Your task to perform on an android device: Go to Wikipedia Image 0: 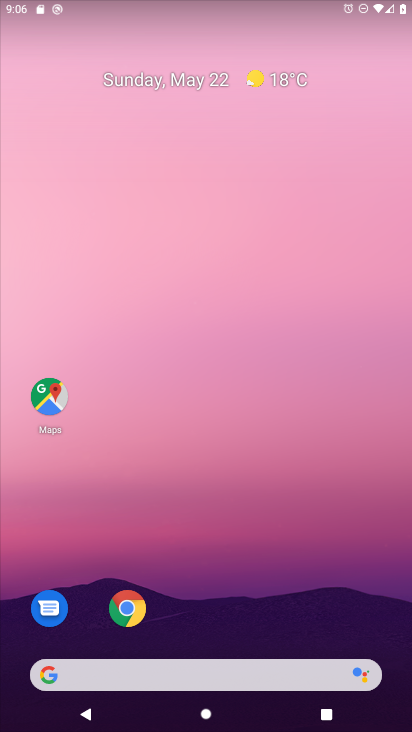
Step 0: click (124, 605)
Your task to perform on an android device: Go to Wikipedia Image 1: 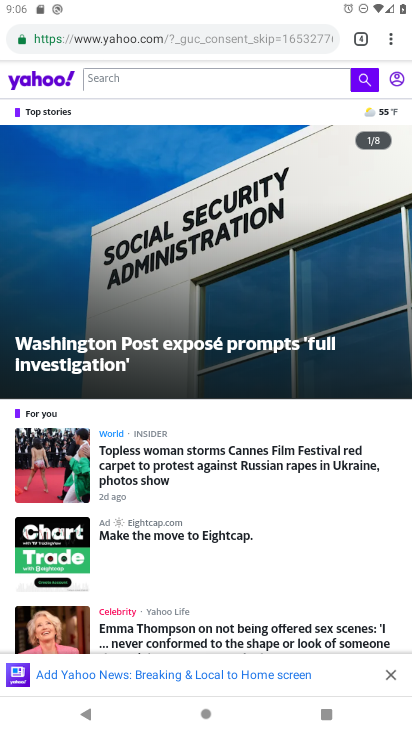
Step 1: click (390, 42)
Your task to perform on an android device: Go to Wikipedia Image 2: 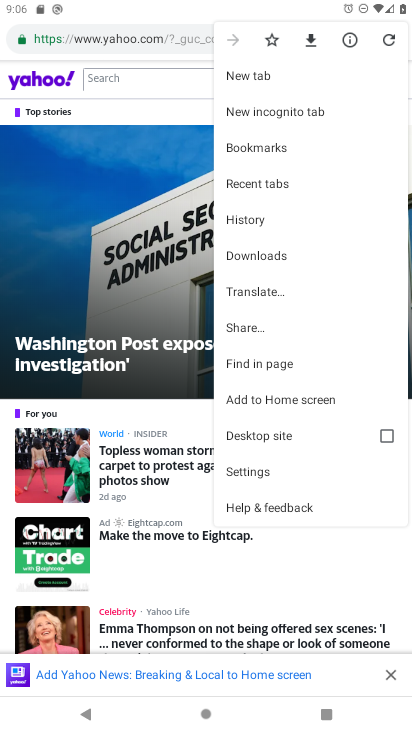
Step 2: click (253, 73)
Your task to perform on an android device: Go to Wikipedia Image 3: 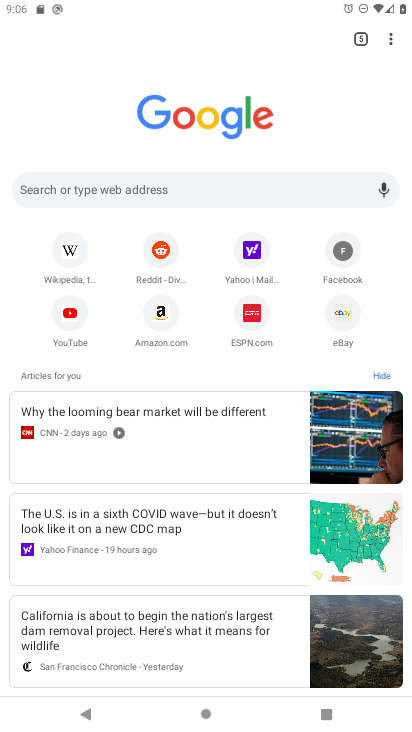
Step 3: click (66, 247)
Your task to perform on an android device: Go to Wikipedia Image 4: 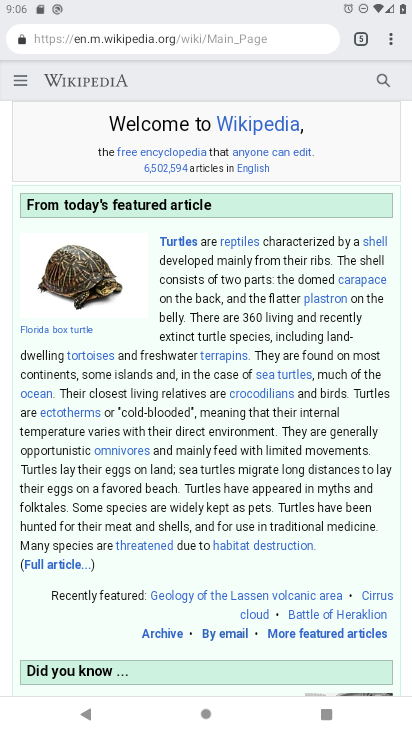
Step 4: task complete